Your task to perform on an android device: Empty the shopping cart on walmart. Add bose soundlink to the cart on walmart, then select checkout. Image 0: 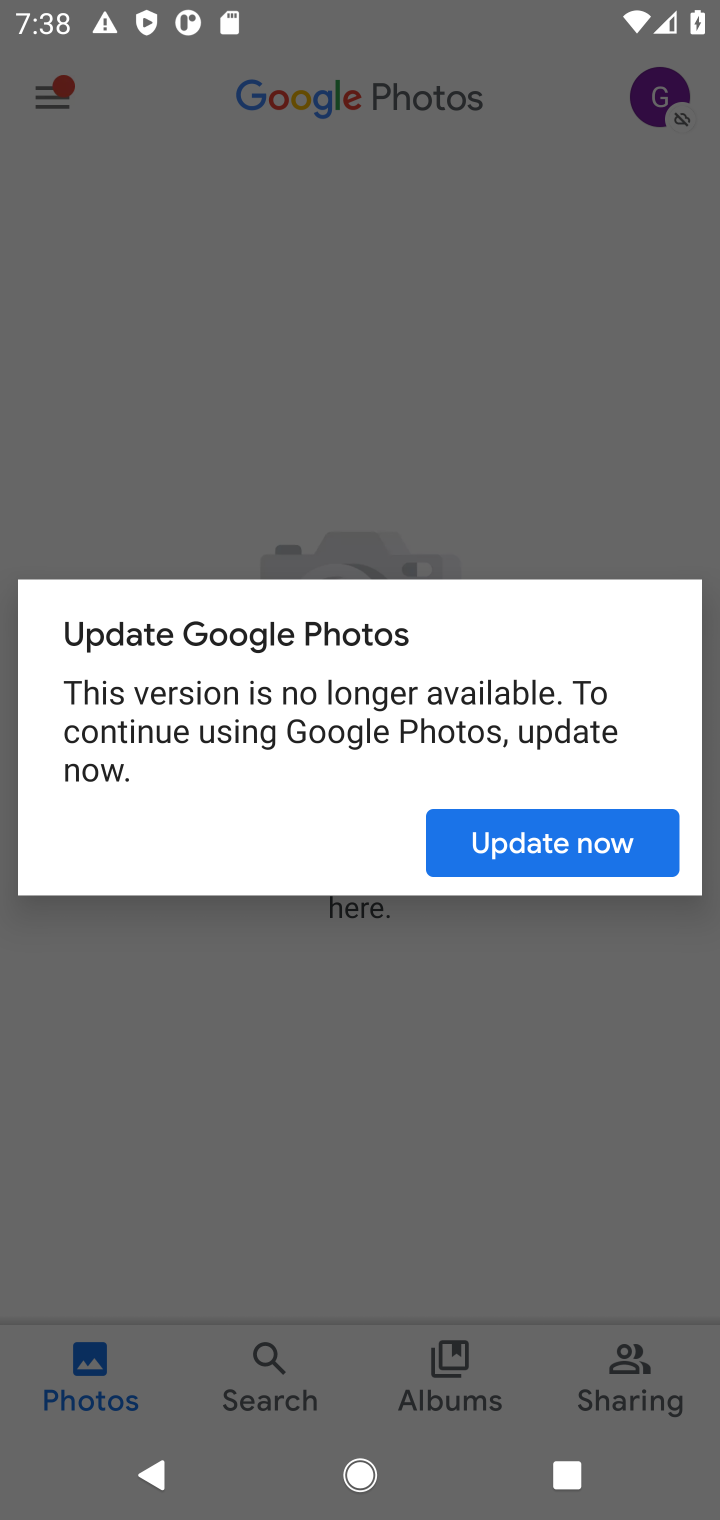
Step 0: press home button
Your task to perform on an android device: Empty the shopping cart on walmart. Add bose soundlink to the cart on walmart, then select checkout. Image 1: 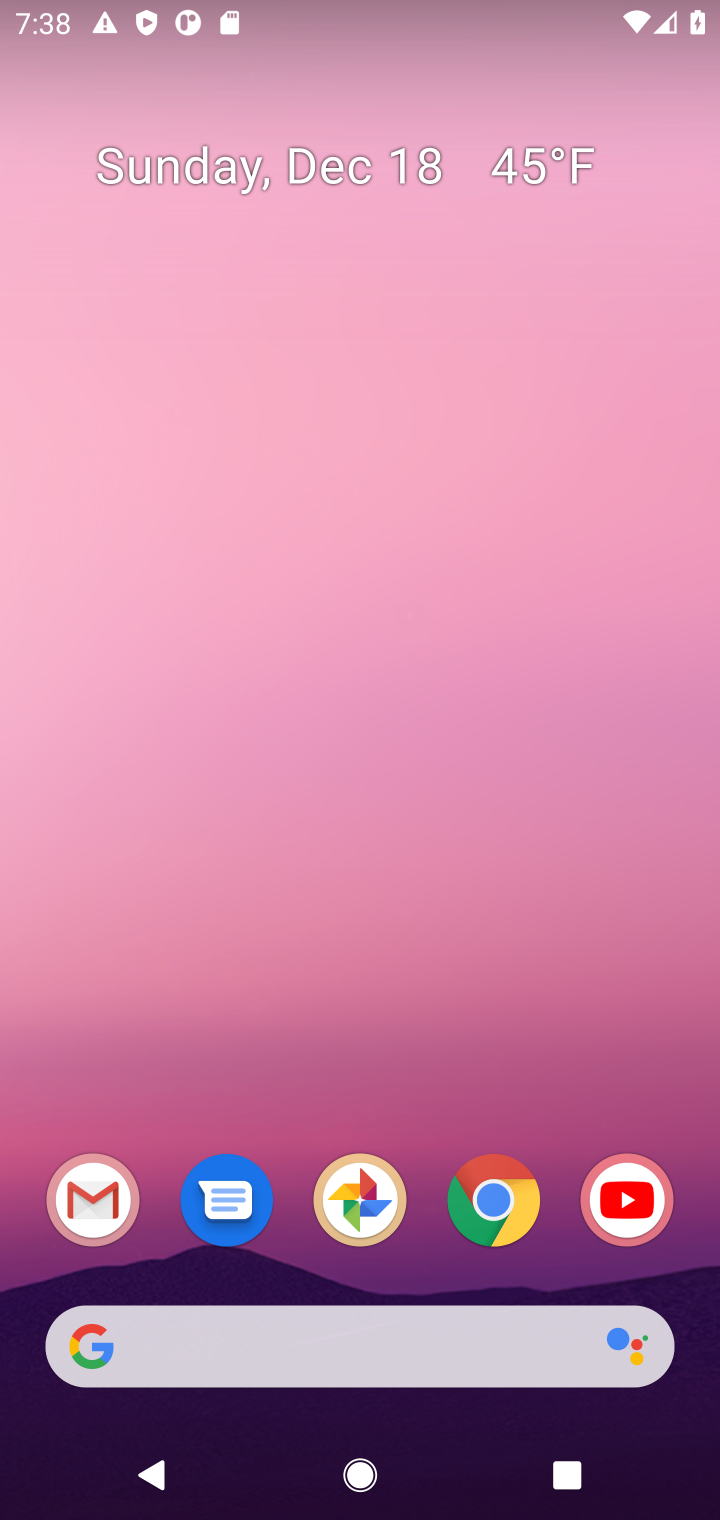
Step 1: click (493, 1201)
Your task to perform on an android device: Empty the shopping cart on walmart. Add bose soundlink to the cart on walmart, then select checkout. Image 2: 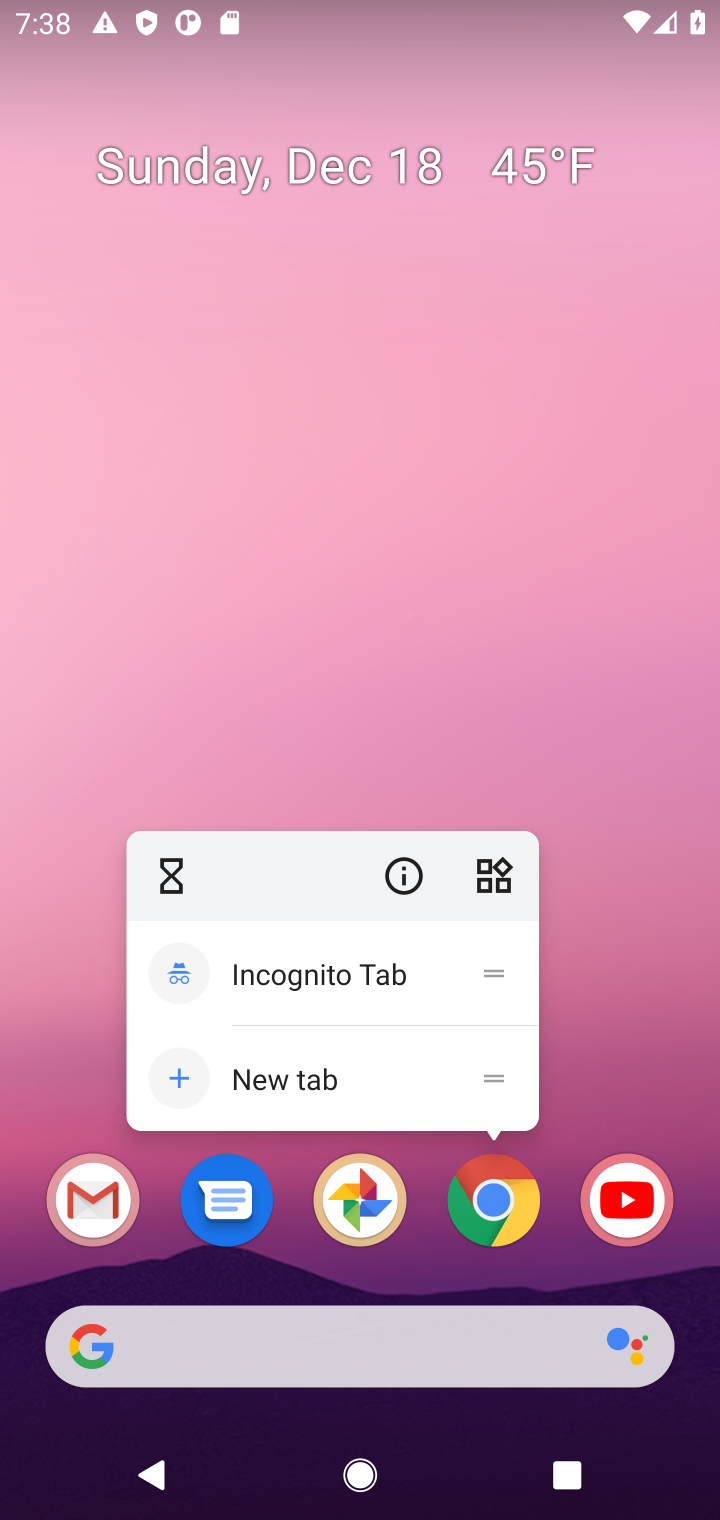
Step 2: click (493, 1201)
Your task to perform on an android device: Empty the shopping cart on walmart. Add bose soundlink to the cart on walmart, then select checkout. Image 3: 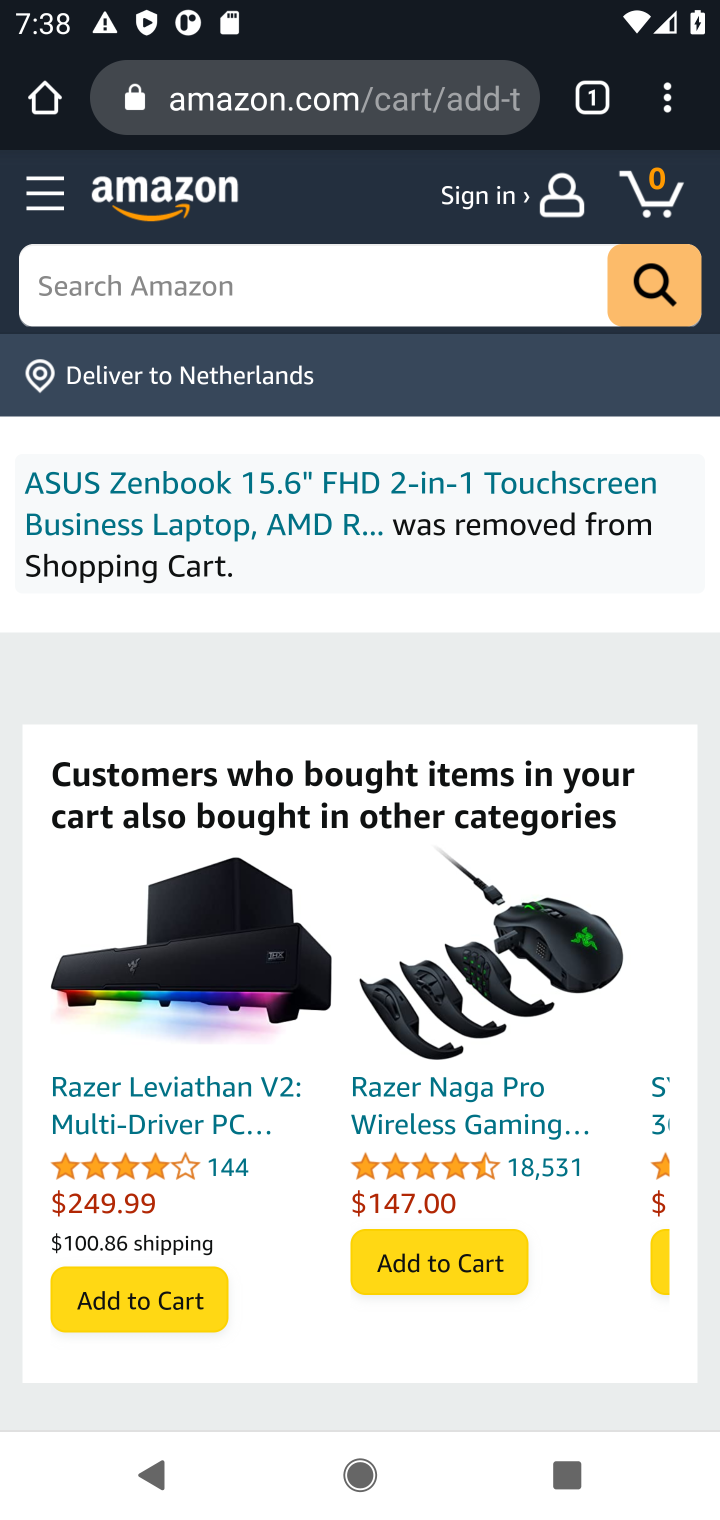
Step 3: click (223, 109)
Your task to perform on an android device: Empty the shopping cart on walmart. Add bose soundlink to the cart on walmart, then select checkout. Image 4: 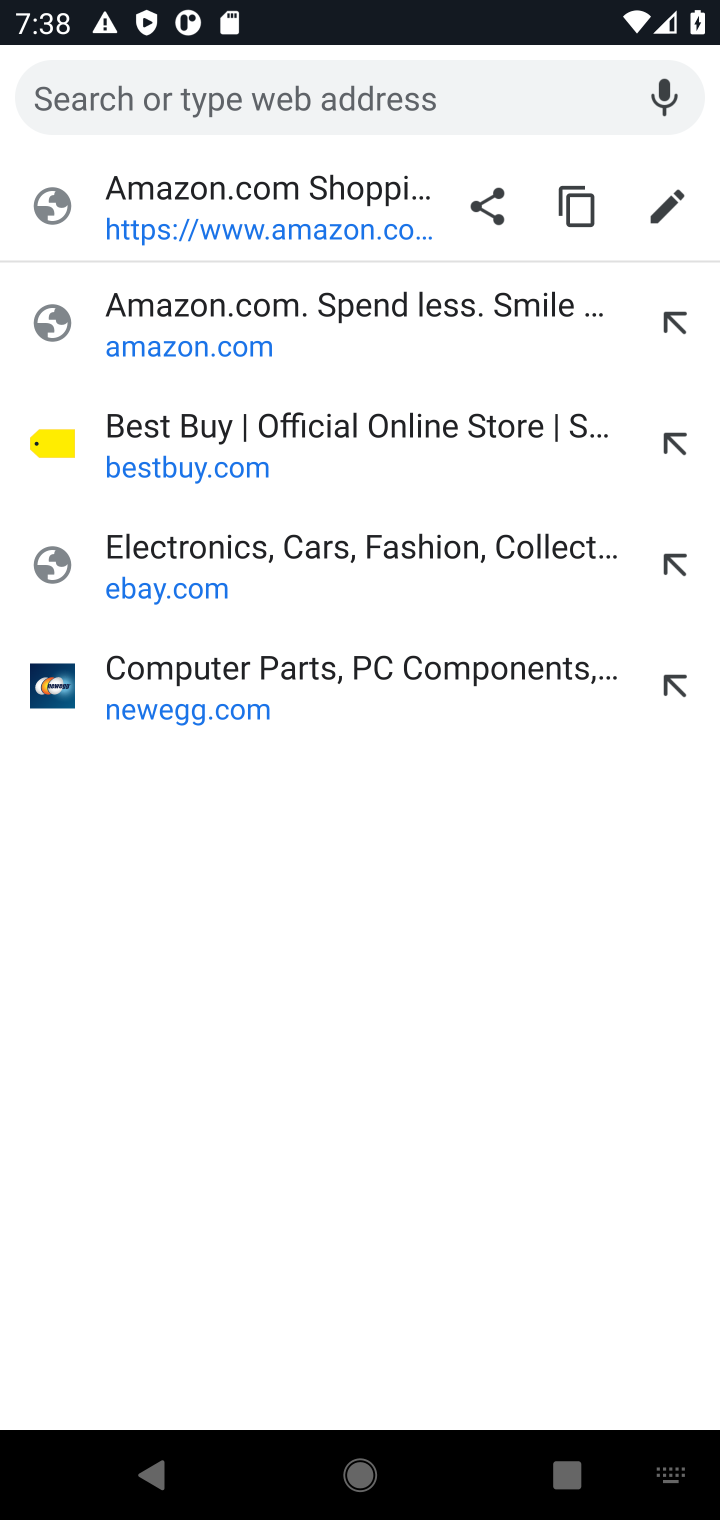
Step 4: type "walmart.com"
Your task to perform on an android device: Empty the shopping cart on walmart. Add bose soundlink to the cart on walmart, then select checkout. Image 5: 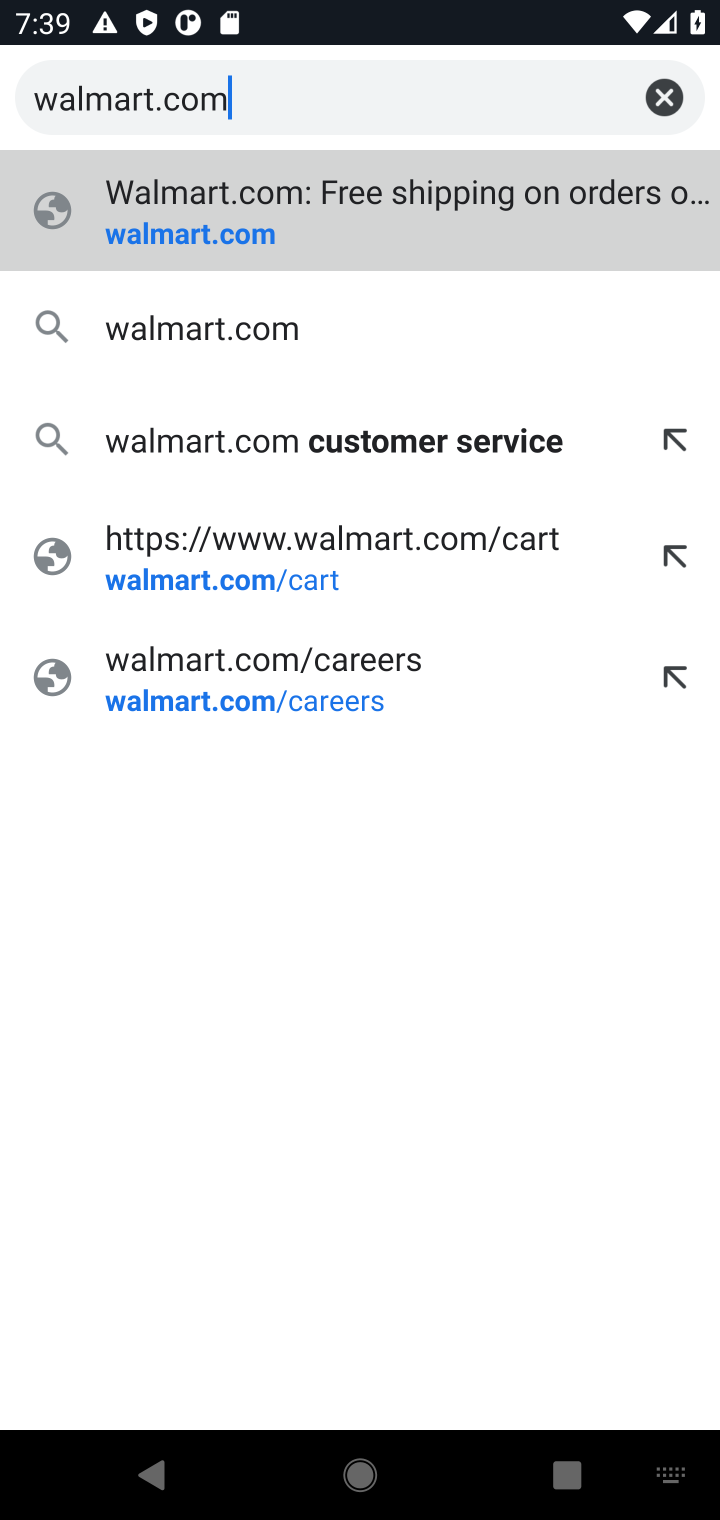
Step 5: click (203, 230)
Your task to perform on an android device: Empty the shopping cart on walmart. Add bose soundlink to the cart on walmart, then select checkout. Image 6: 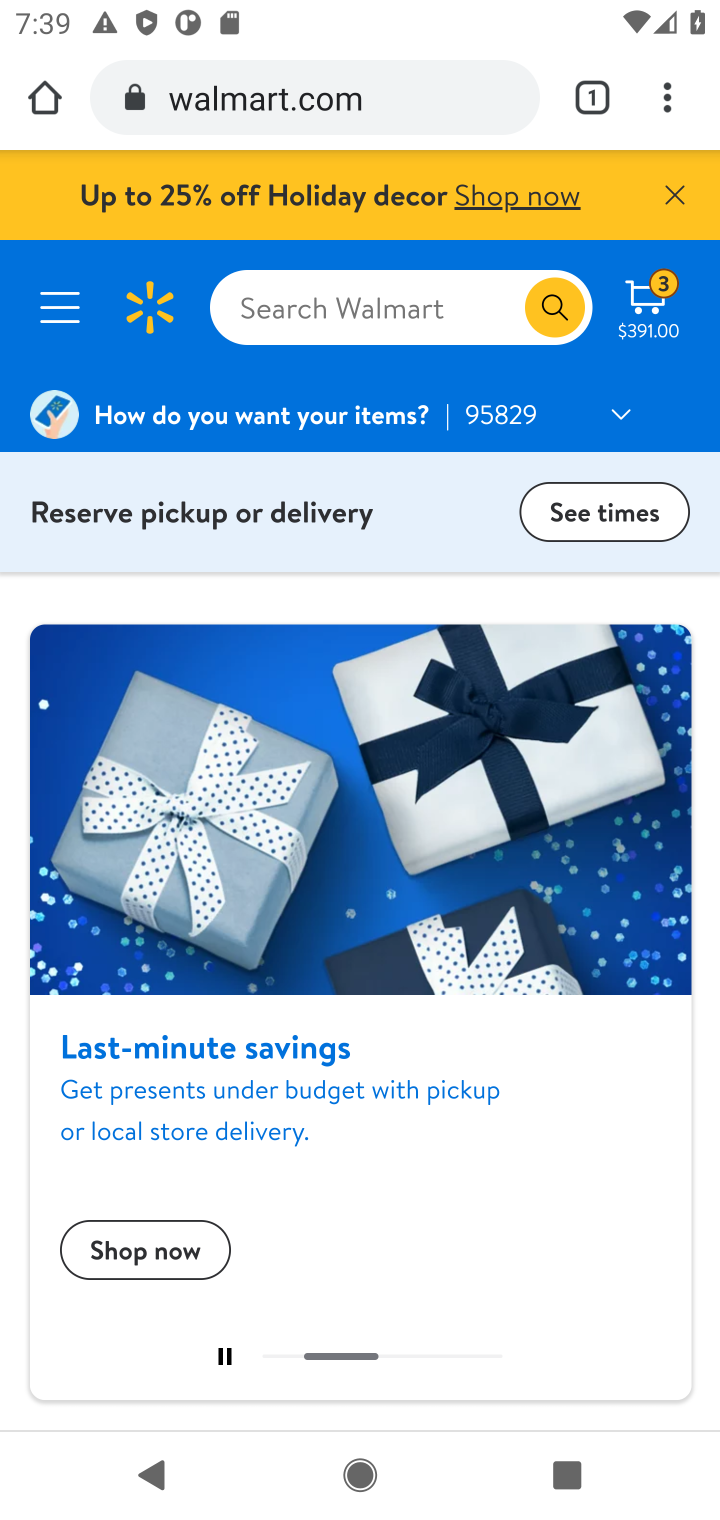
Step 6: click (650, 325)
Your task to perform on an android device: Empty the shopping cart on walmart. Add bose soundlink to the cart on walmart, then select checkout. Image 7: 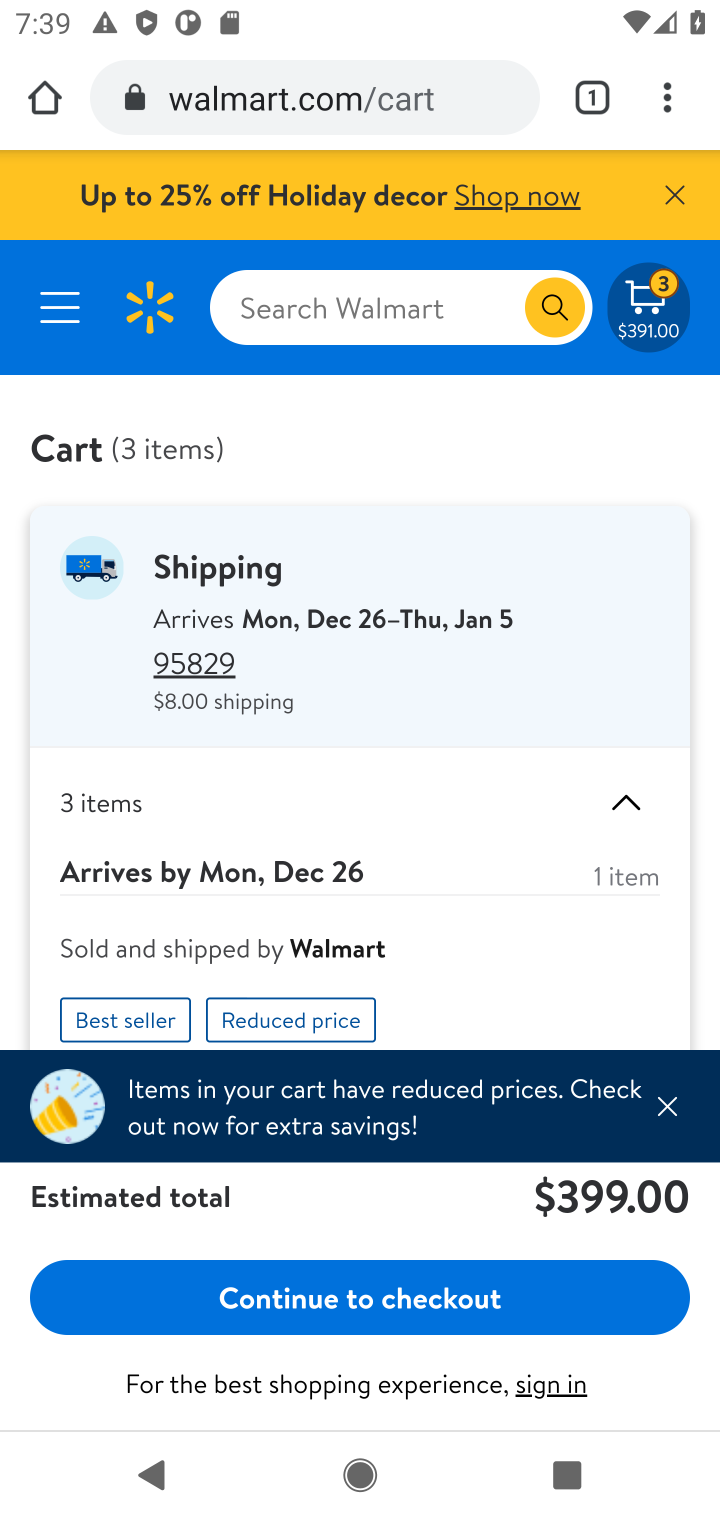
Step 7: click (665, 1105)
Your task to perform on an android device: Empty the shopping cart on walmart. Add bose soundlink to the cart on walmart, then select checkout. Image 8: 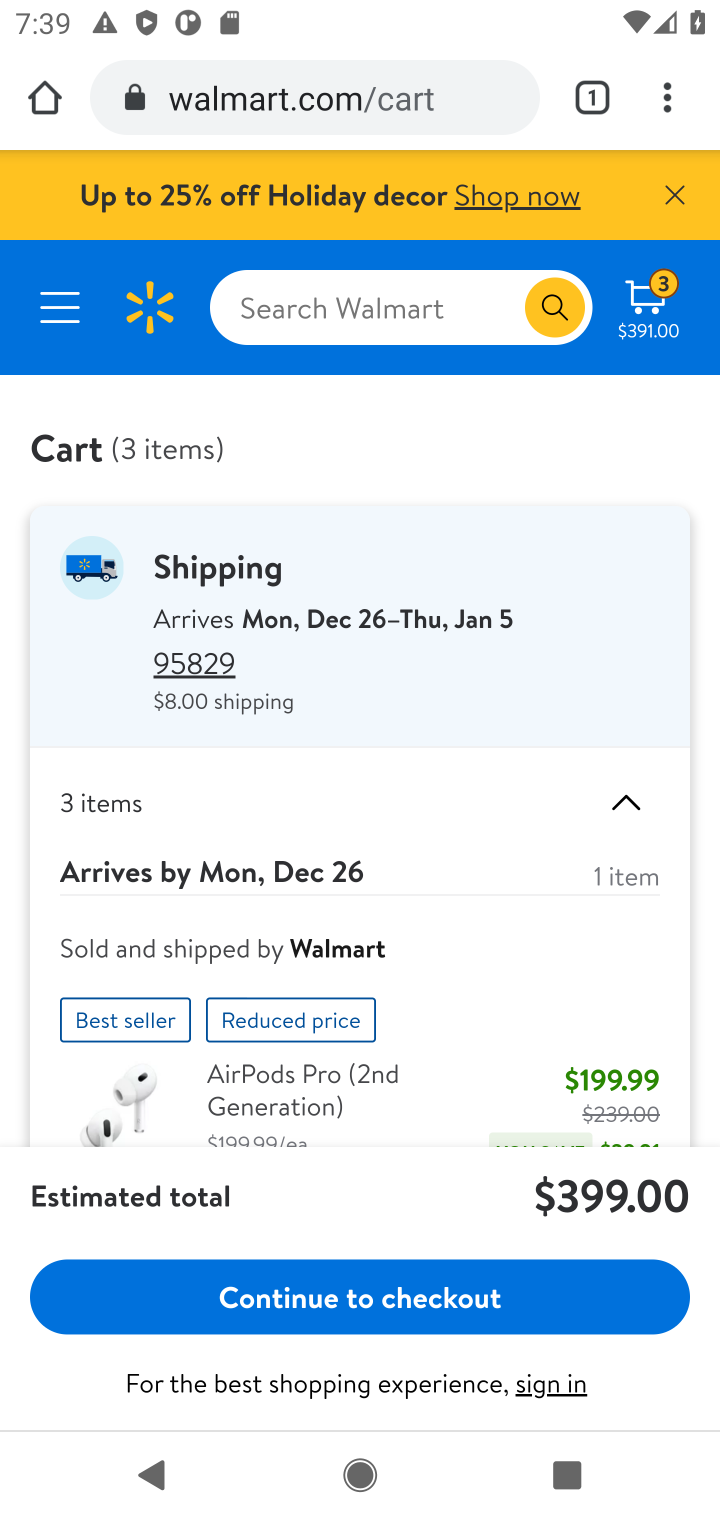
Step 8: drag from (407, 1036) to (402, 560)
Your task to perform on an android device: Empty the shopping cart on walmart. Add bose soundlink to the cart on walmart, then select checkout. Image 9: 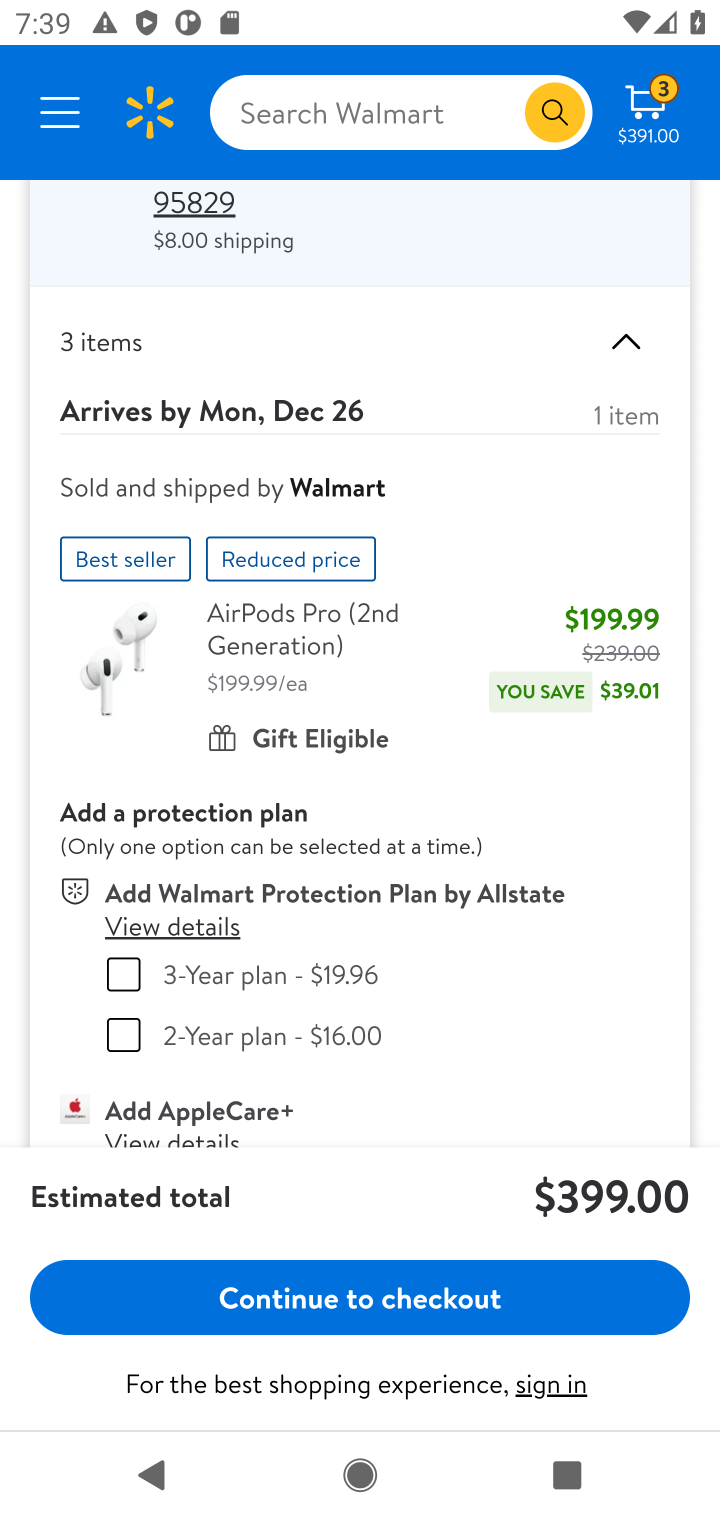
Step 9: drag from (461, 976) to (449, 540)
Your task to perform on an android device: Empty the shopping cart on walmart. Add bose soundlink to the cart on walmart, then select checkout. Image 10: 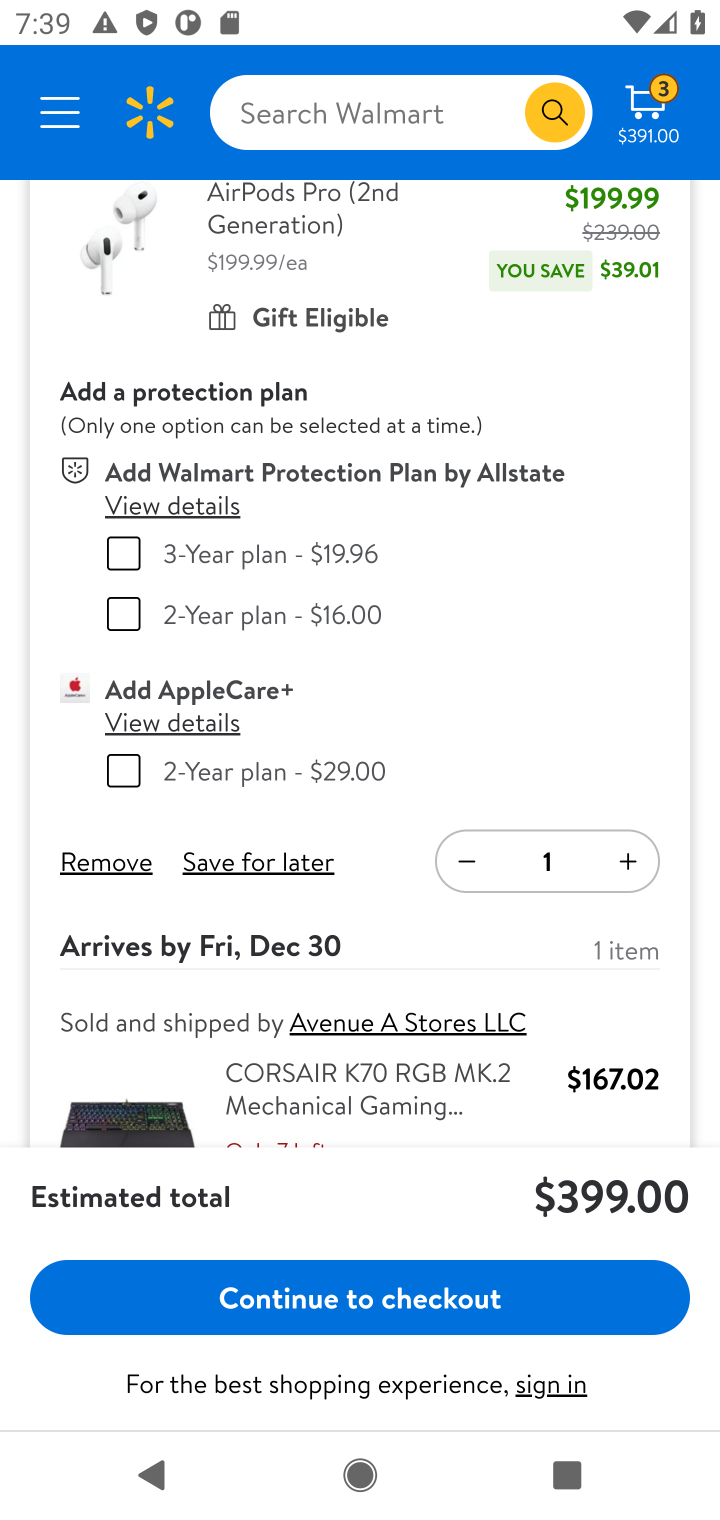
Step 10: click (85, 872)
Your task to perform on an android device: Empty the shopping cart on walmart. Add bose soundlink to the cart on walmart, then select checkout. Image 11: 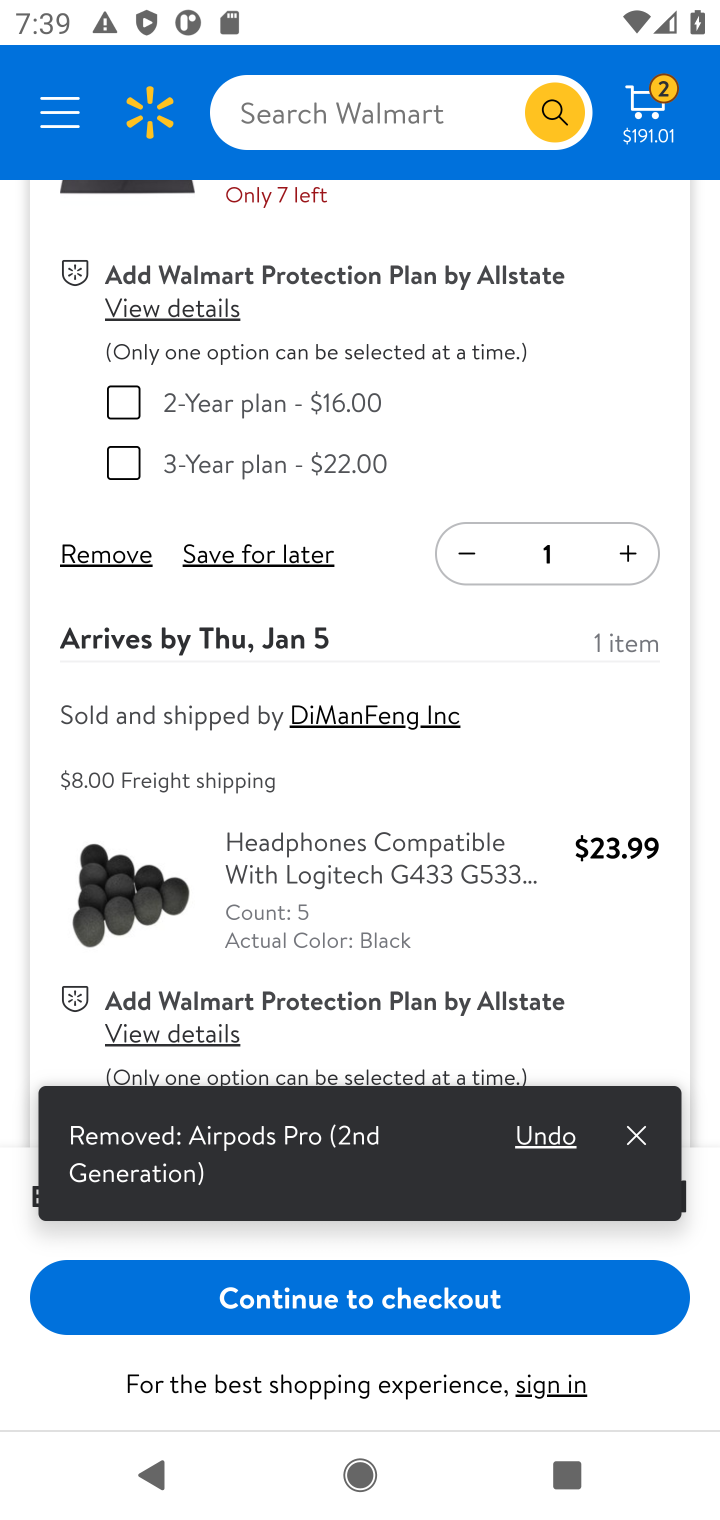
Step 11: click (77, 559)
Your task to perform on an android device: Empty the shopping cart on walmart. Add bose soundlink to the cart on walmart, then select checkout. Image 12: 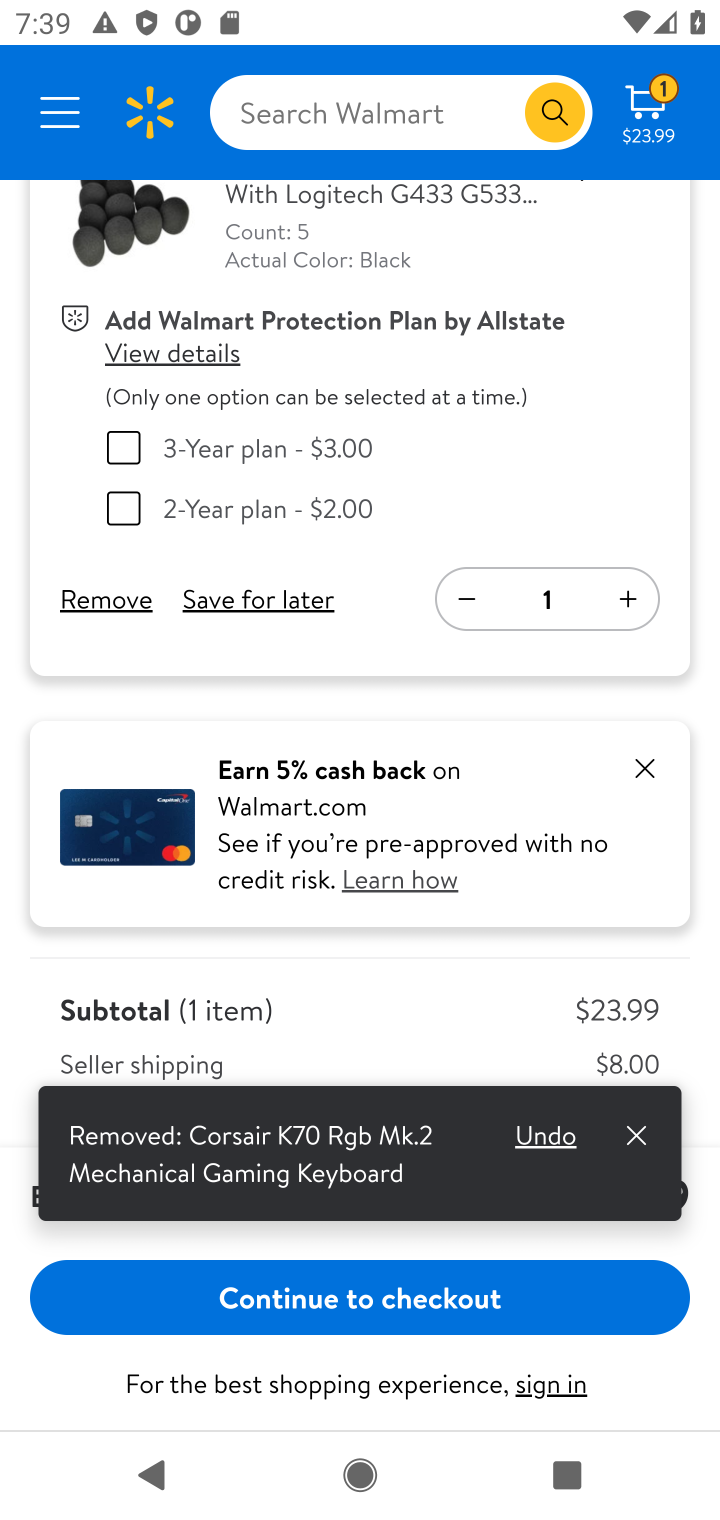
Step 12: click (81, 603)
Your task to perform on an android device: Empty the shopping cart on walmart. Add bose soundlink to the cart on walmart, then select checkout. Image 13: 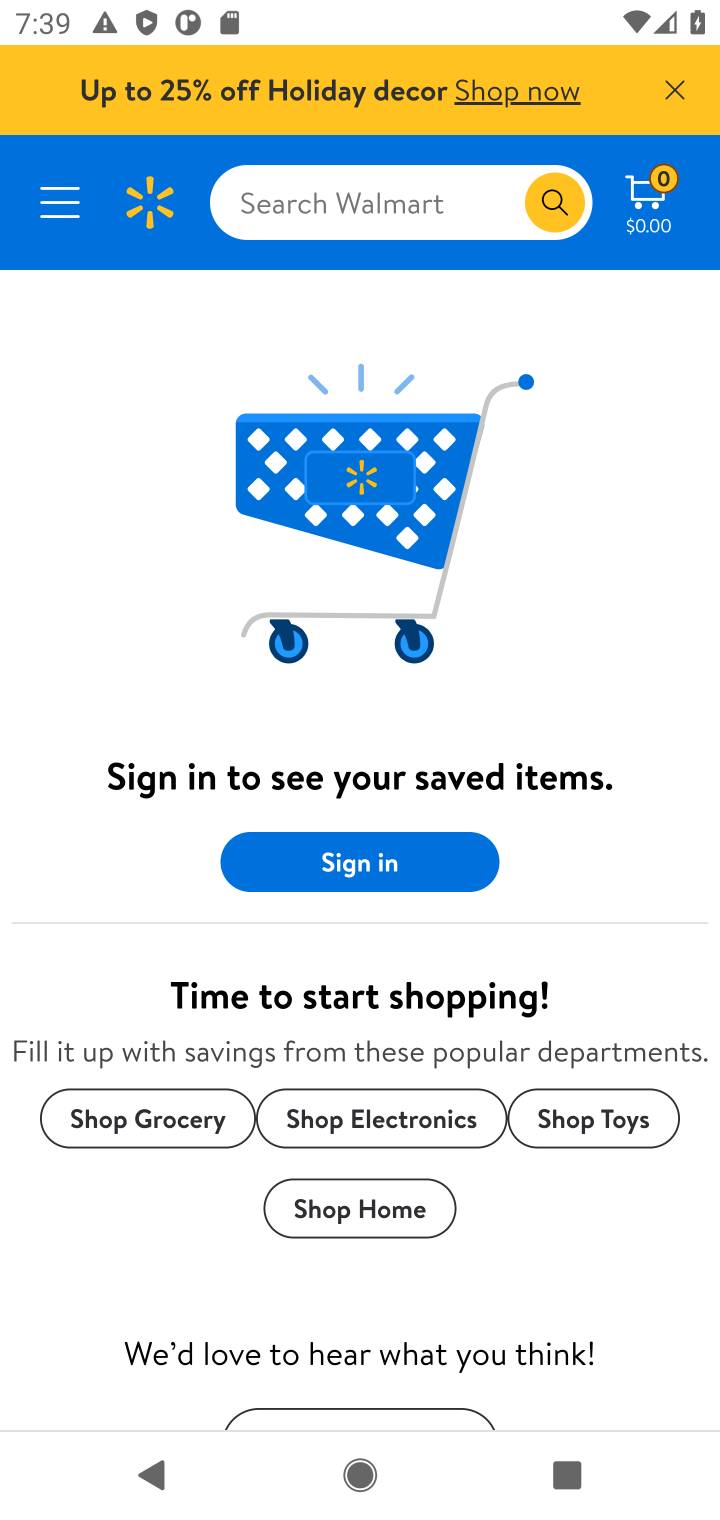
Step 13: click (322, 213)
Your task to perform on an android device: Empty the shopping cart on walmart. Add bose soundlink to the cart on walmart, then select checkout. Image 14: 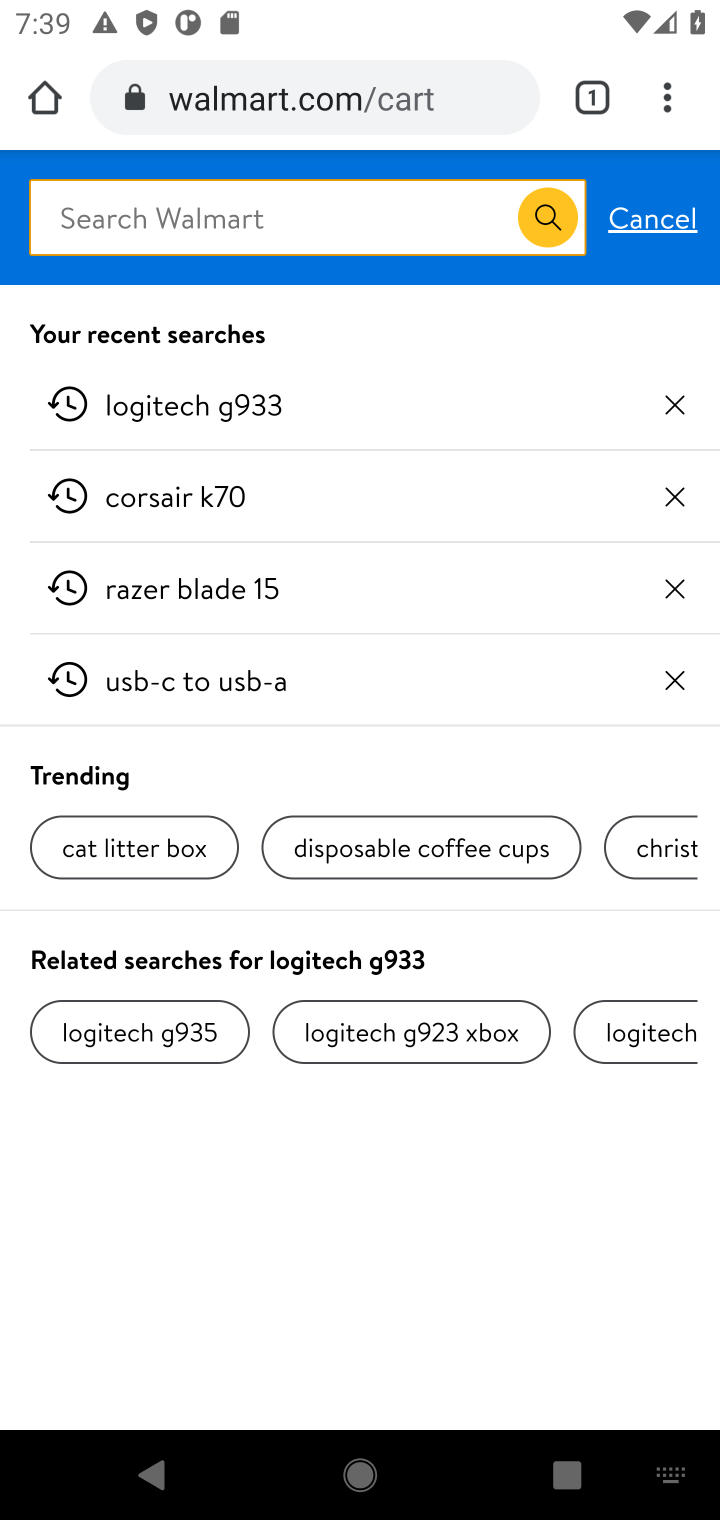
Step 14: type "bose soundlink"
Your task to perform on an android device: Empty the shopping cart on walmart. Add bose soundlink to the cart on walmart, then select checkout. Image 15: 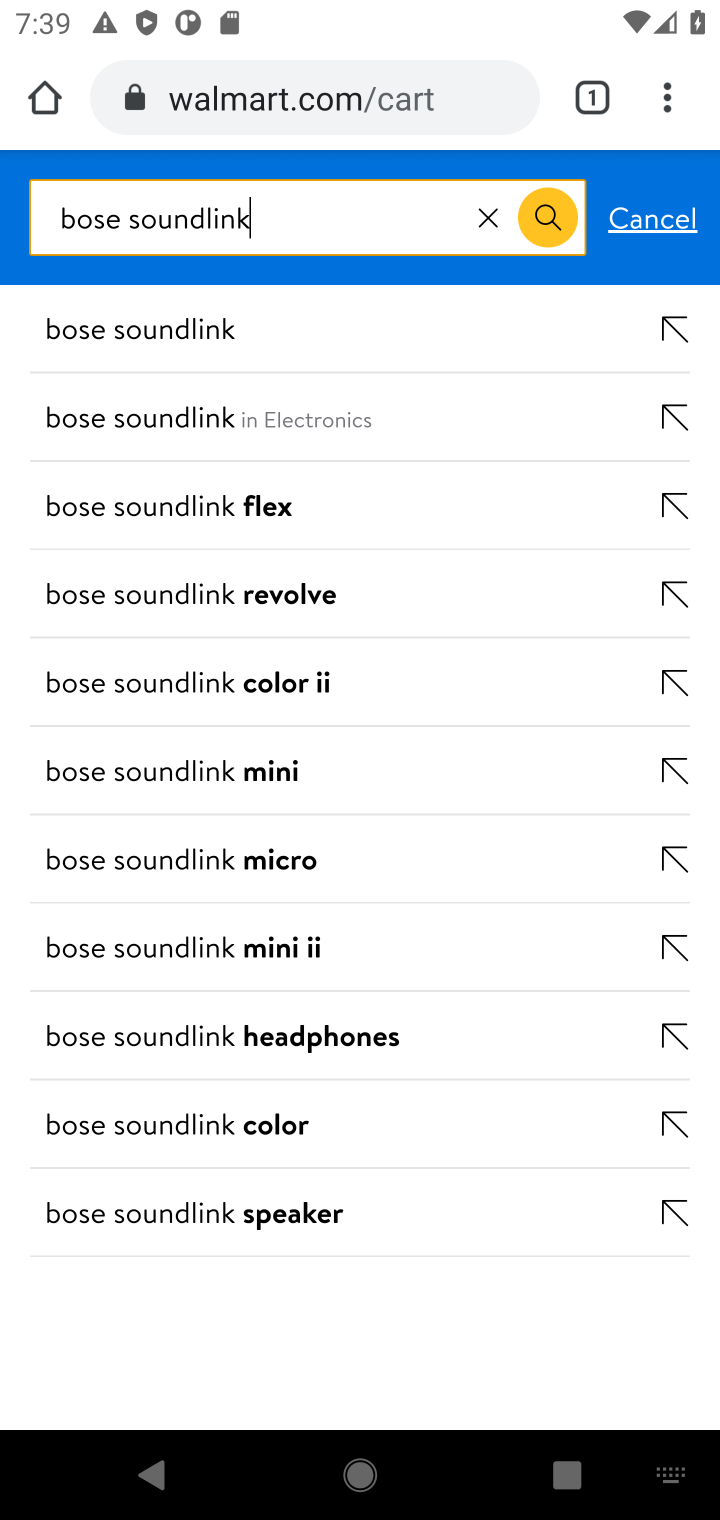
Step 15: click (169, 337)
Your task to perform on an android device: Empty the shopping cart on walmart. Add bose soundlink to the cart on walmart, then select checkout. Image 16: 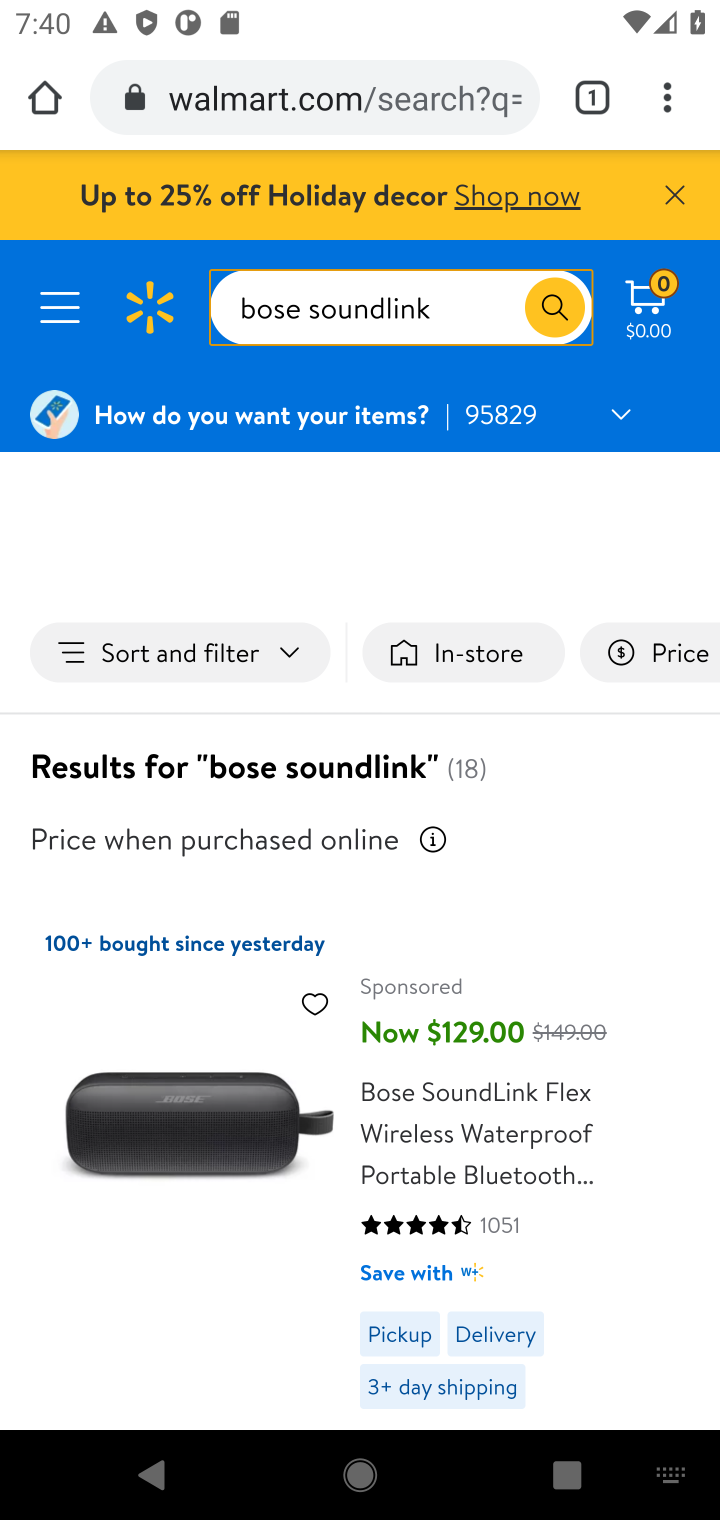
Step 16: drag from (306, 1187) to (316, 706)
Your task to perform on an android device: Empty the shopping cart on walmart. Add bose soundlink to the cart on walmart, then select checkout. Image 17: 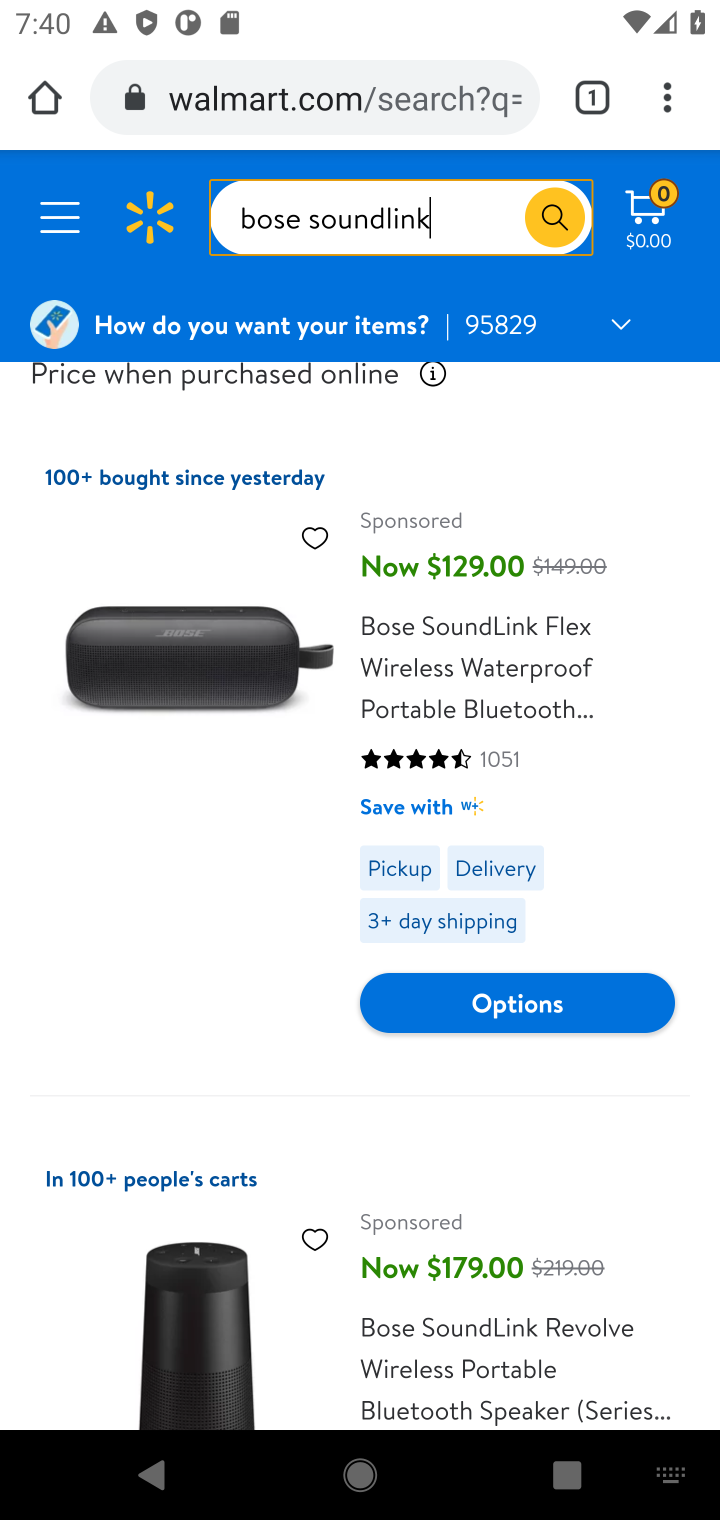
Step 17: click (446, 685)
Your task to perform on an android device: Empty the shopping cart on walmart. Add bose soundlink to the cart on walmart, then select checkout. Image 18: 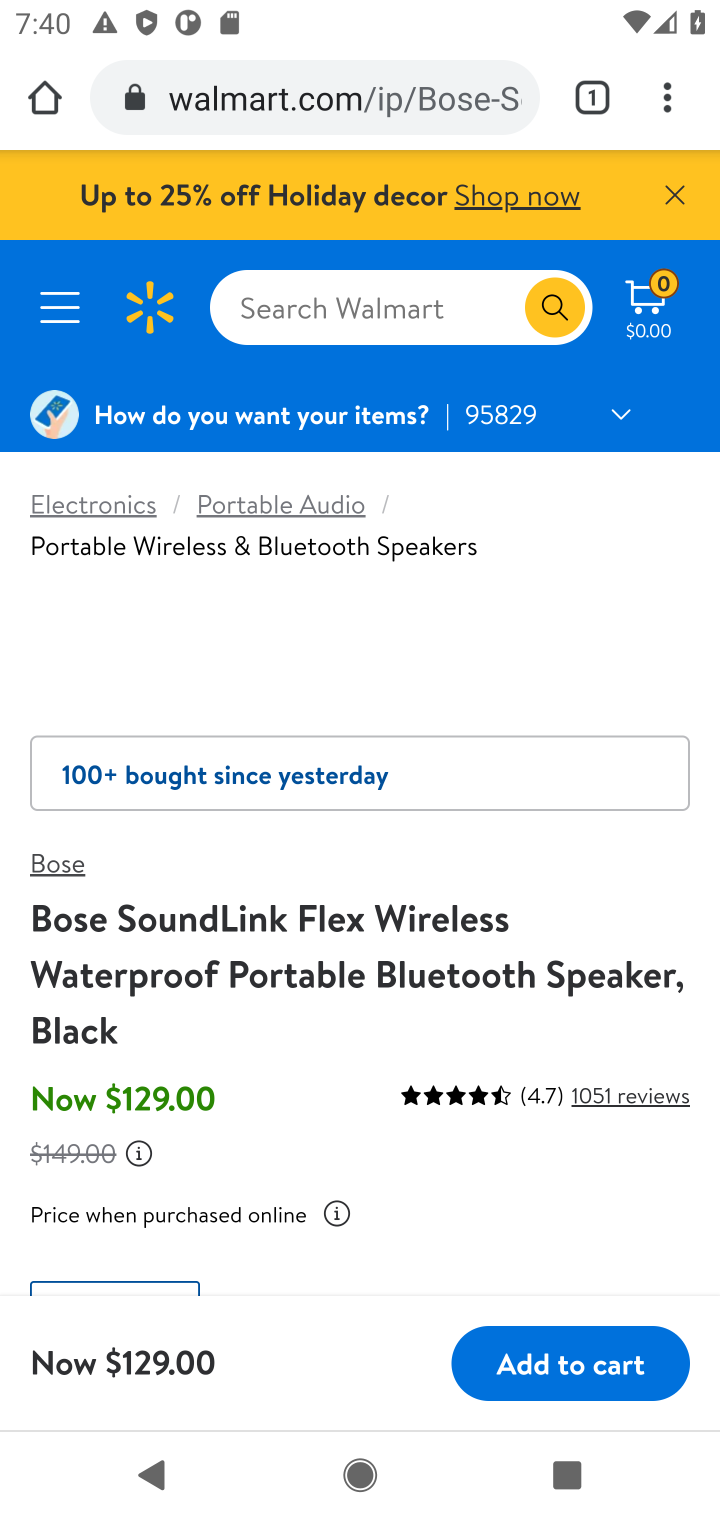
Step 18: click (559, 1373)
Your task to perform on an android device: Empty the shopping cart on walmart. Add bose soundlink to the cart on walmart, then select checkout. Image 19: 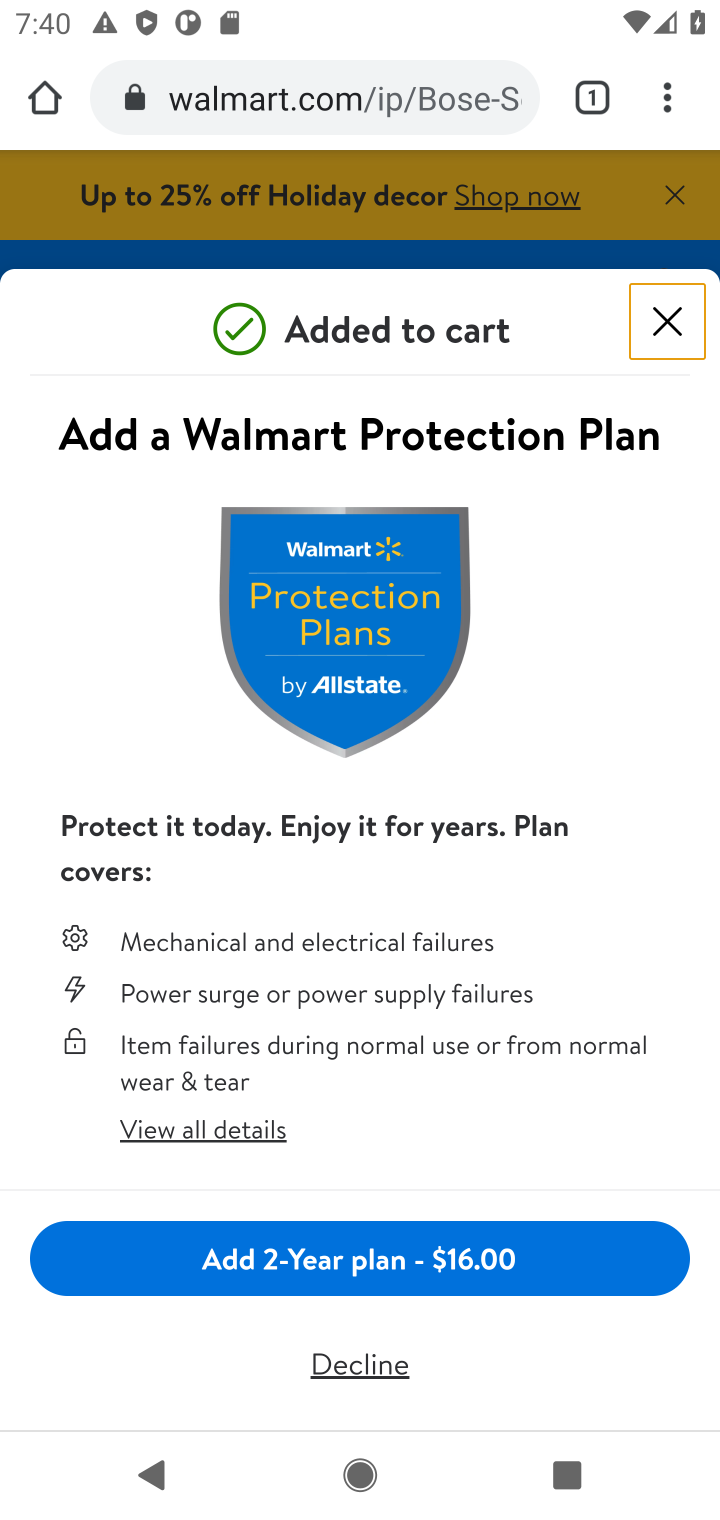
Step 19: click (655, 336)
Your task to perform on an android device: Empty the shopping cart on walmart. Add bose soundlink to the cart on walmart, then select checkout. Image 20: 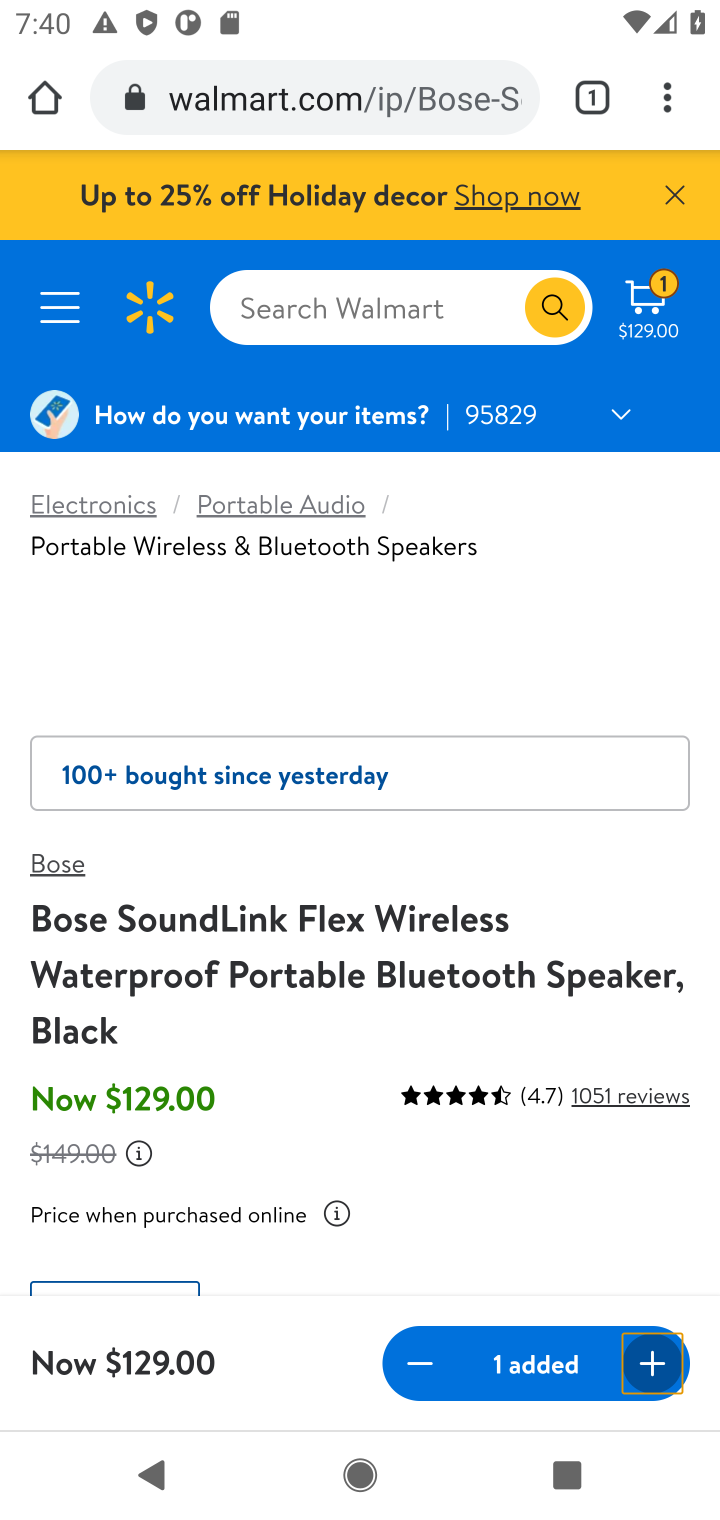
Step 20: click (642, 308)
Your task to perform on an android device: Empty the shopping cart on walmart. Add bose soundlink to the cart on walmart, then select checkout. Image 21: 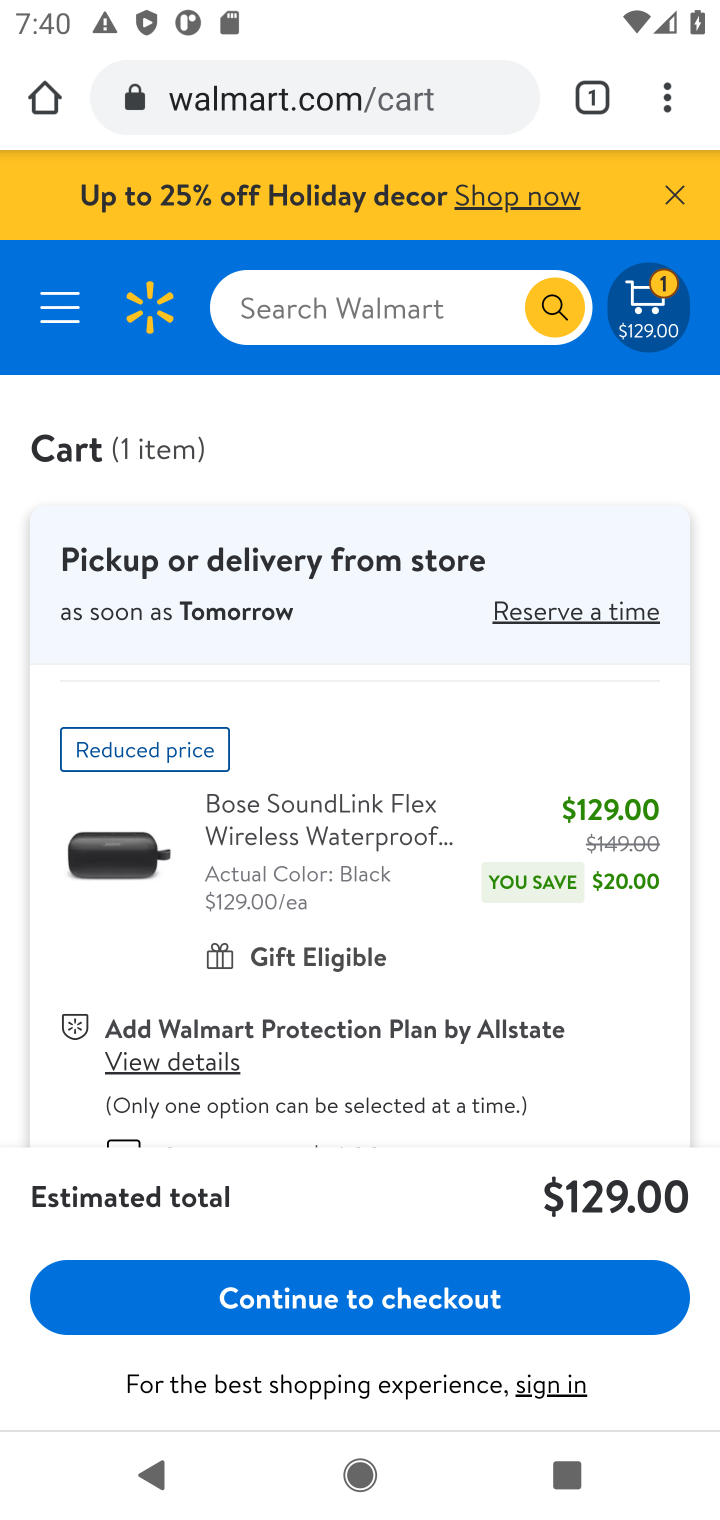
Step 21: click (372, 1306)
Your task to perform on an android device: Empty the shopping cart on walmart. Add bose soundlink to the cart on walmart, then select checkout. Image 22: 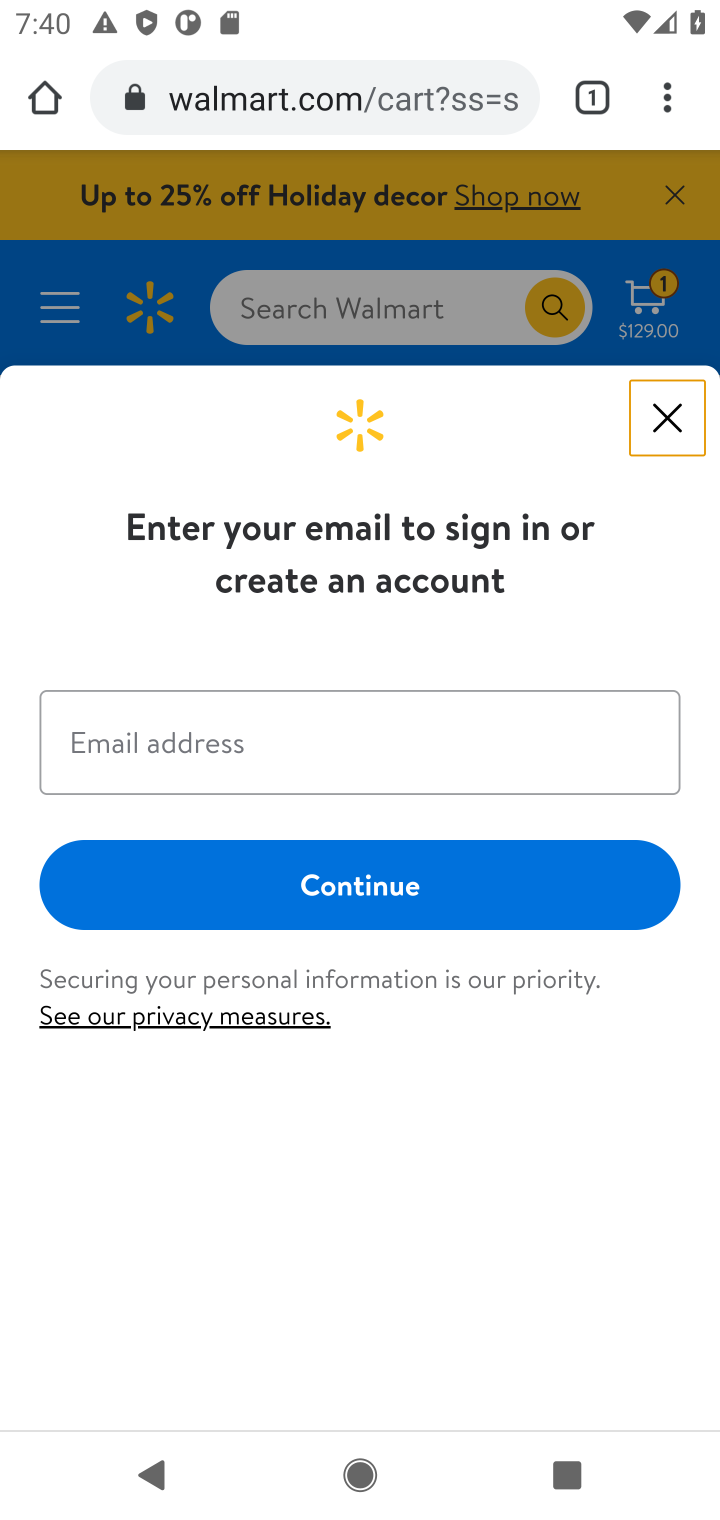
Step 22: task complete